Your task to perform on an android device: set the timer Image 0: 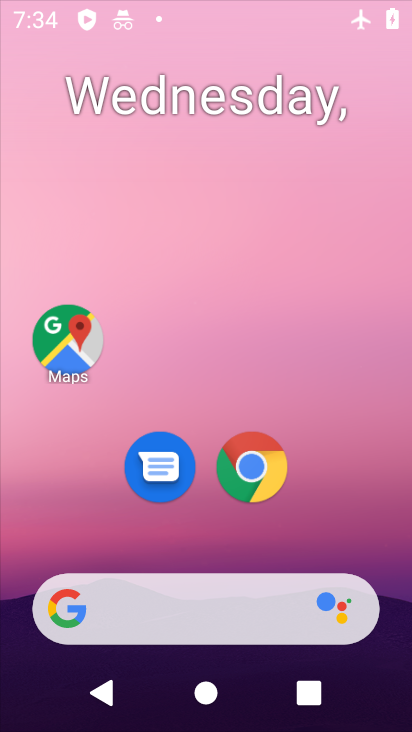
Step 0: click (351, 132)
Your task to perform on an android device: set the timer Image 1: 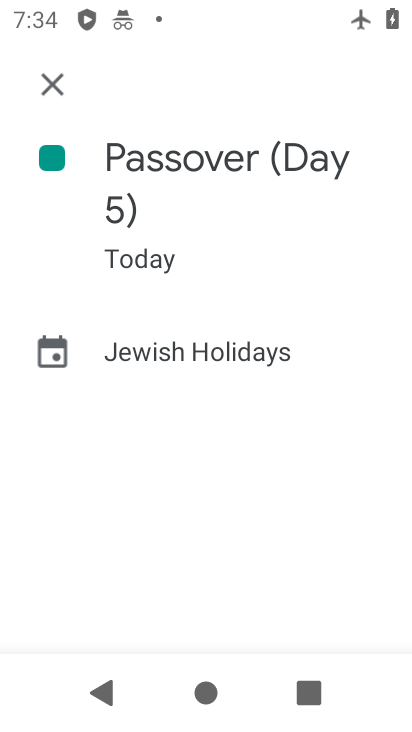
Step 1: press home button
Your task to perform on an android device: set the timer Image 2: 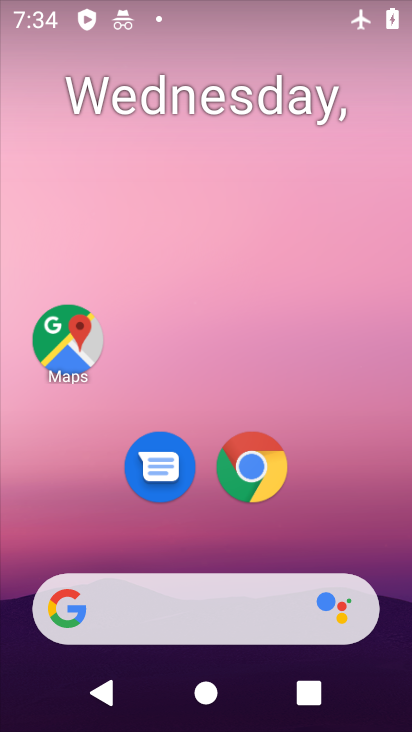
Step 2: drag from (376, 545) to (287, 31)
Your task to perform on an android device: set the timer Image 3: 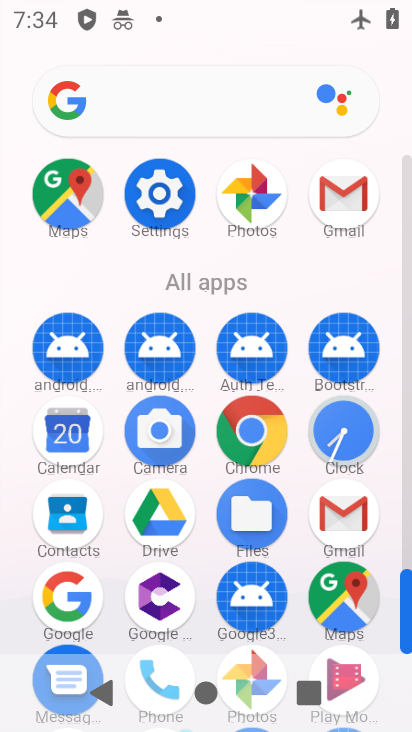
Step 3: click (333, 434)
Your task to perform on an android device: set the timer Image 4: 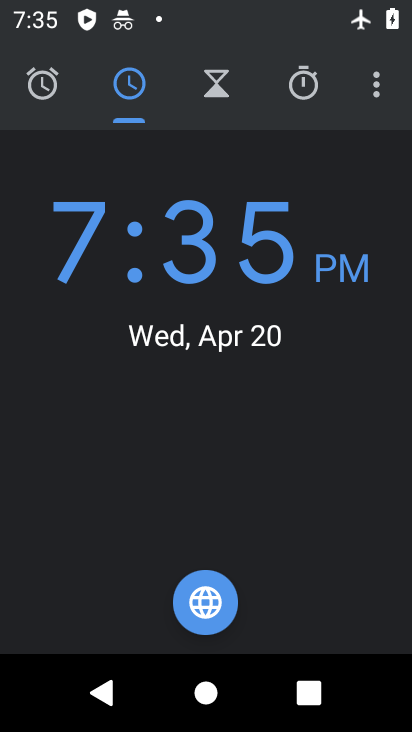
Step 4: click (294, 81)
Your task to perform on an android device: set the timer Image 5: 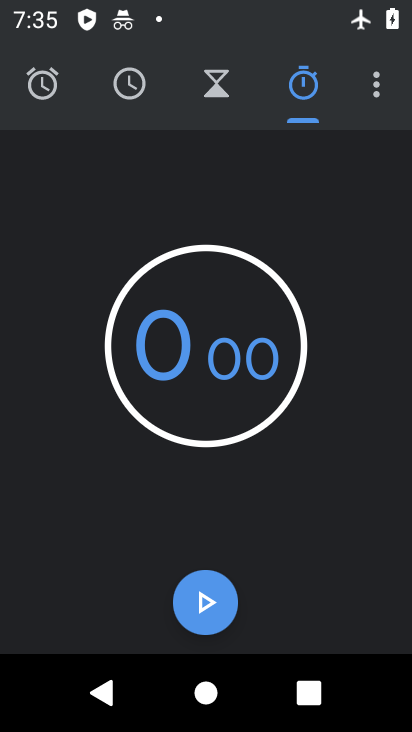
Step 5: click (206, 586)
Your task to perform on an android device: set the timer Image 6: 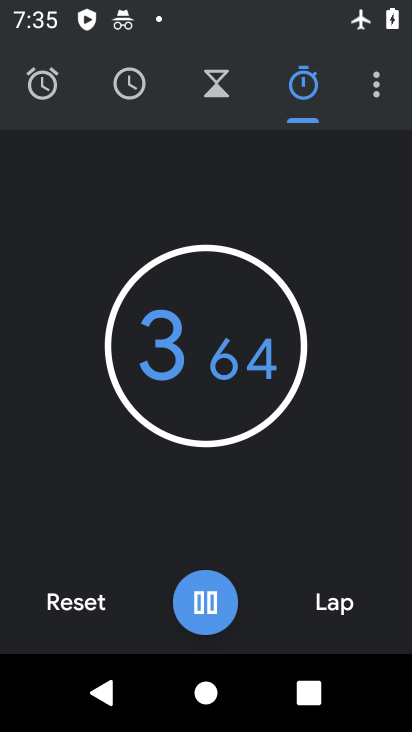
Step 6: task complete